Your task to perform on an android device: turn on notifications settings in the gmail app Image 0: 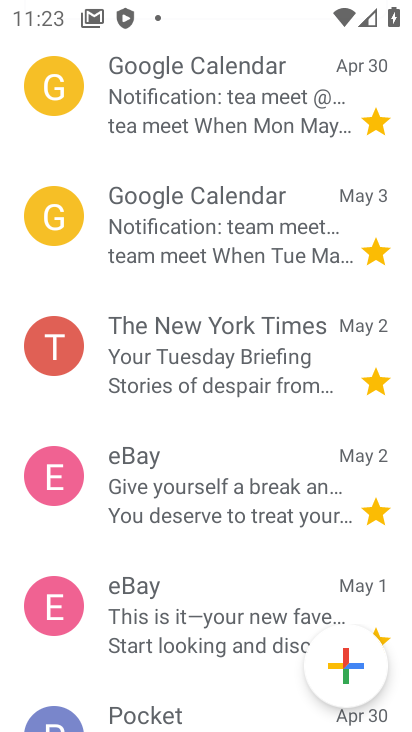
Step 0: drag from (205, 142) to (232, 470)
Your task to perform on an android device: turn on notifications settings in the gmail app Image 1: 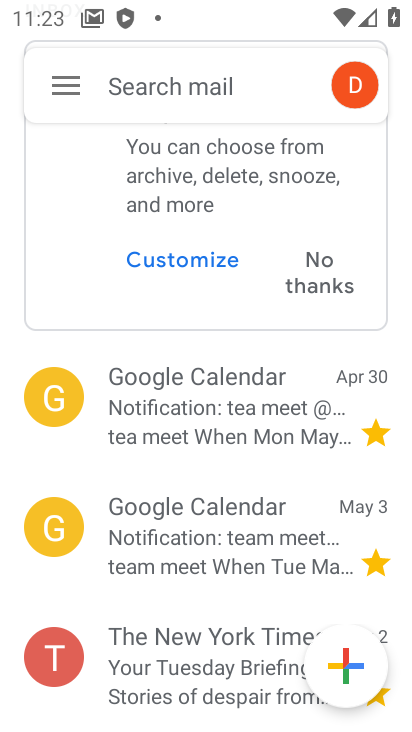
Step 1: click (58, 85)
Your task to perform on an android device: turn on notifications settings in the gmail app Image 2: 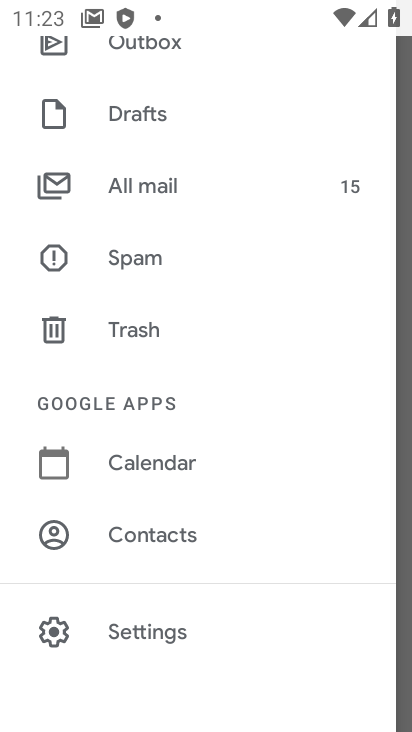
Step 2: click (132, 633)
Your task to perform on an android device: turn on notifications settings in the gmail app Image 3: 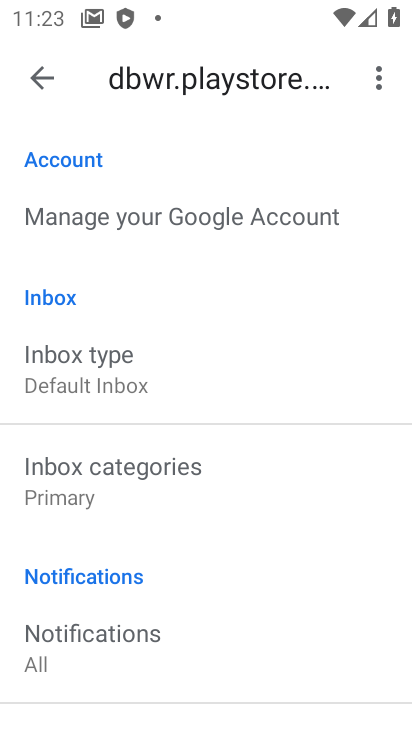
Step 3: drag from (254, 661) to (254, 541)
Your task to perform on an android device: turn on notifications settings in the gmail app Image 4: 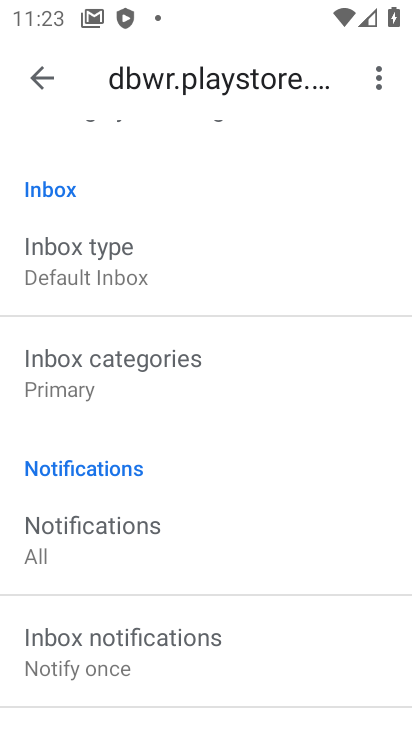
Step 4: click (124, 523)
Your task to perform on an android device: turn on notifications settings in the gmail app Image 5: 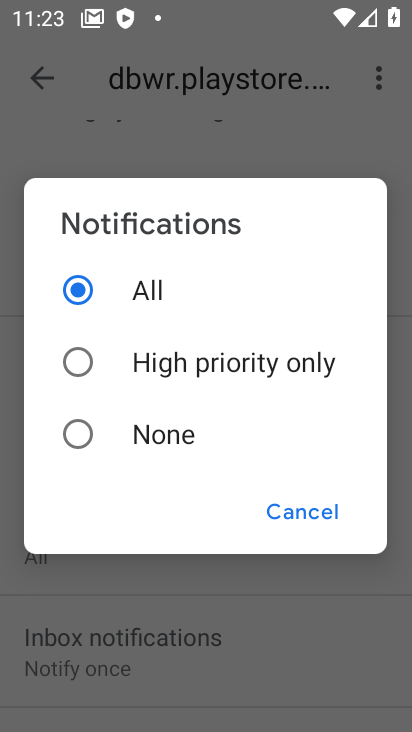
Step 5: click (303, 506)
Your task to perform on an android device: turn on notifications settings in the gmail app Image 6: 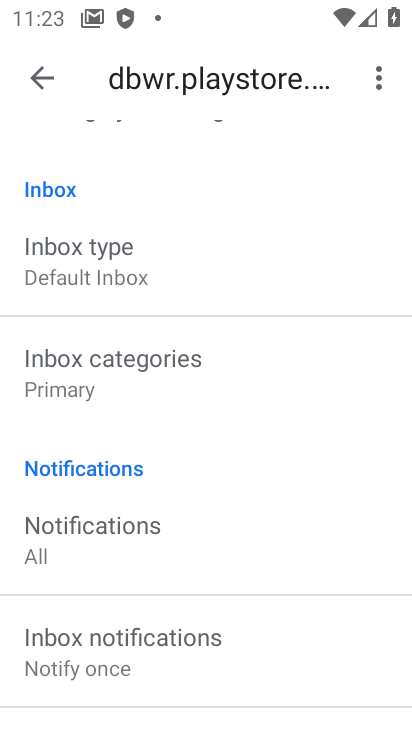
Step 6: task complete